Your task to perform on an android device: Open the calendar app, open the side menu, and click the "Day" option Image 0: 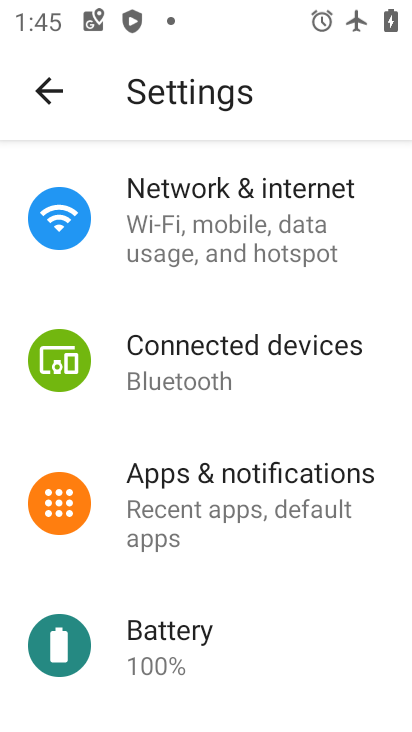
Step 0: press home button
Your task to perform on an android device: Open the calendar app, open the side menu, and click the "Day" option Image 1: 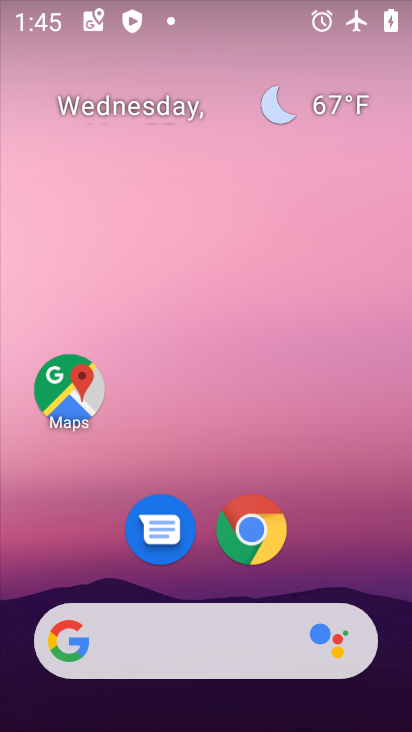
Step 1: drag from (342, 552) to (283, 143)
Your task to perform on an android device: Open the calendar app, open the side menu, and click the "Day" option Image 2: 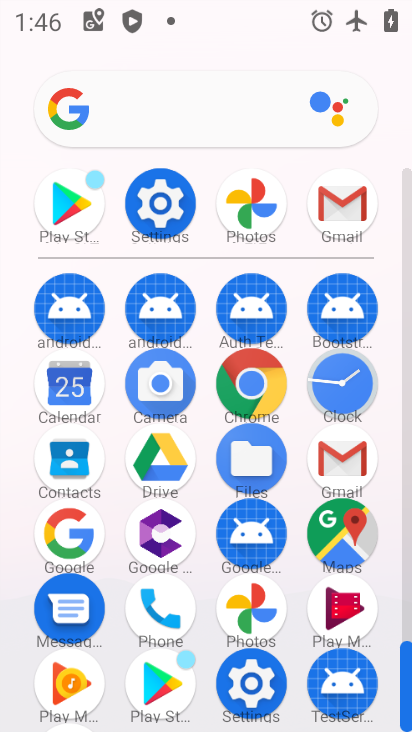
Step 2: click (68, 389)
Your task to perform on an android device: Open the calendar app, open the side menu, and click the "Day" option Image 3: 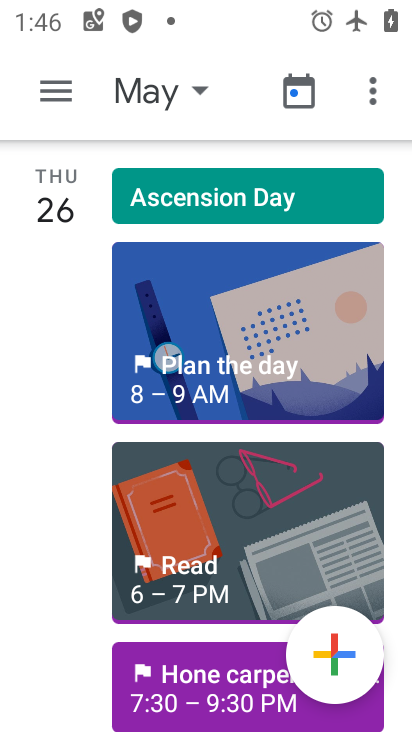
Step 3: click (64, 90)
Your task to perform on an android device: Open the calendar app, open the side menu, and click the "Day" option Image 4: 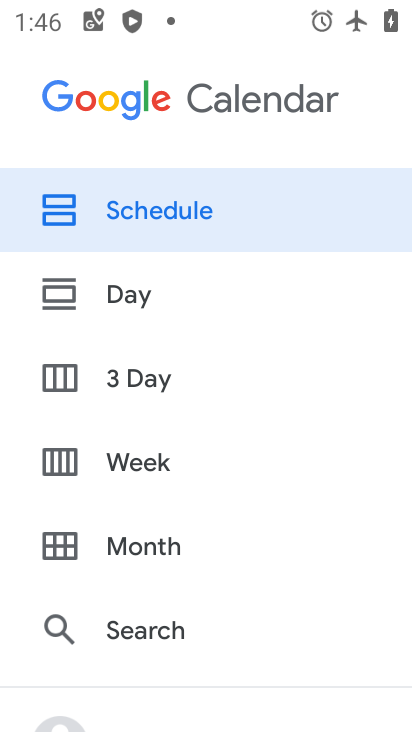
Step 4: click (118, 290)
Your task to perform on an android device: Open the calendar app, open the side menu, and click the "Day" option Image 5: 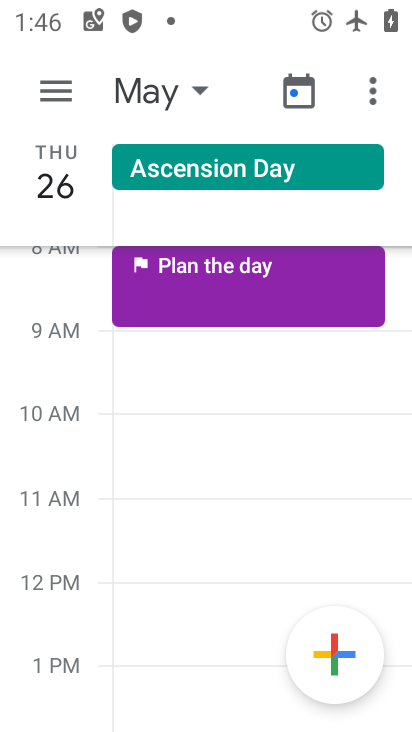
Step 5: task complete